Your task to perform on an android device: open wifi settings Image 0: 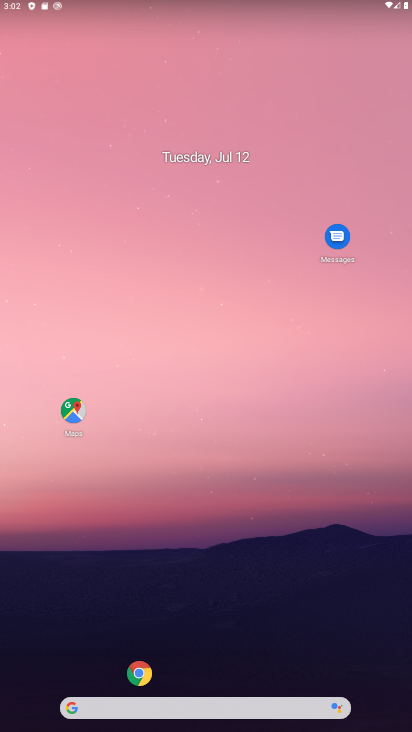
Step 0: drag from (45, 689) to (285, 61)
Your task to perform on an android device: open wifi settings Image 1: 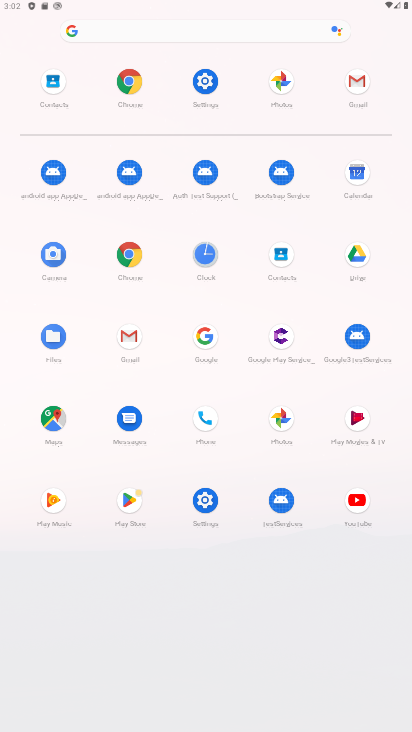
Step 1: click (205, 499)
Your task to perform on an android device: open wifi settings Image 2: 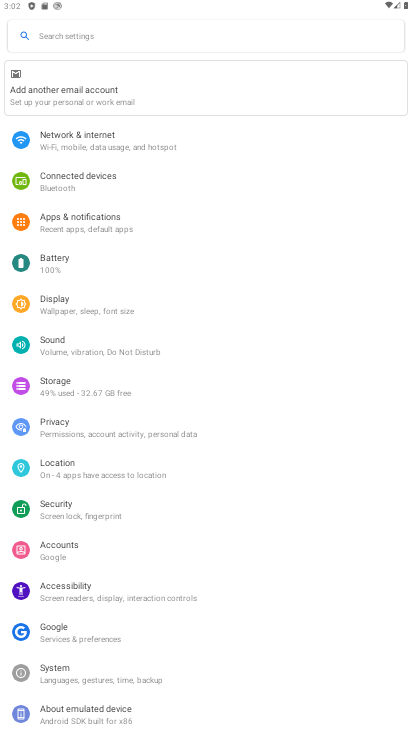
Step 2: click (111, 144)
Your task to perform on an android device: open wifi settings Image 3: 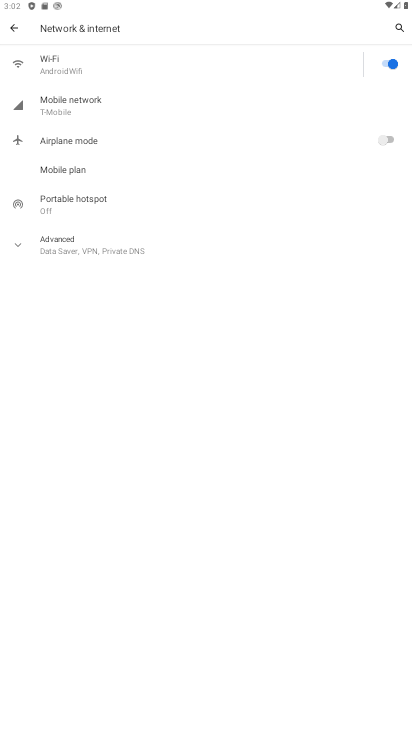
Step 3: task complete